Your task to perform on an android device: read, delete, or share a saved page in the chrome app Image 0: 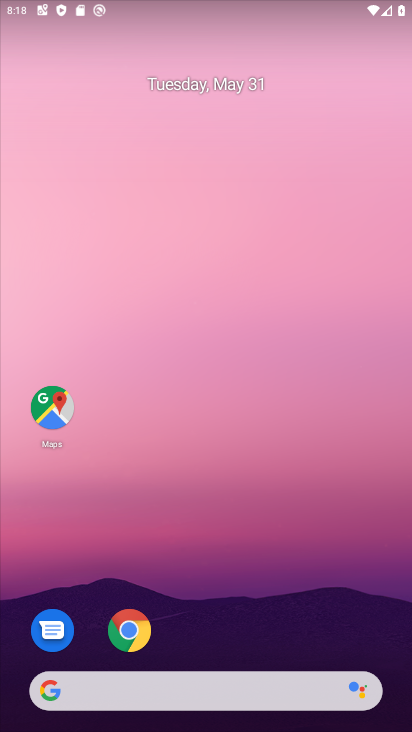
Step 0: drag from (235, 581) to (245, 234)
Your task to perform on an android device: read, delete, or share a saved page in the chrome app Image 1: 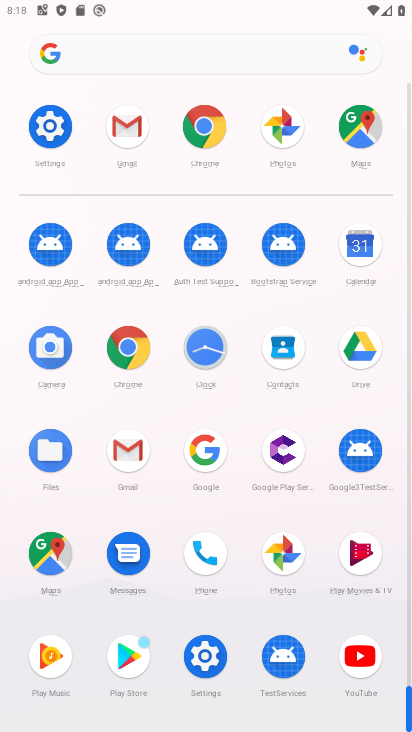
Step 1: click (119, 342)
Your task to perform on an android device: read, delete, or share a saved page in the chrome app Image 2: 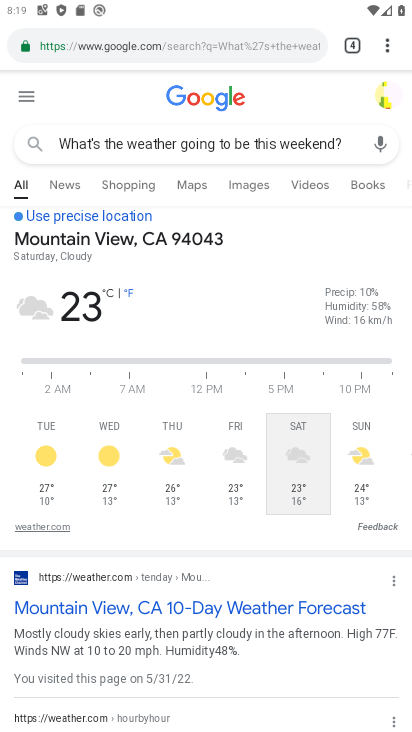
Step 2: click (388, 41)
Your task to perform on an android device: read, delete, or share a saved page in the chrome app Image 3: 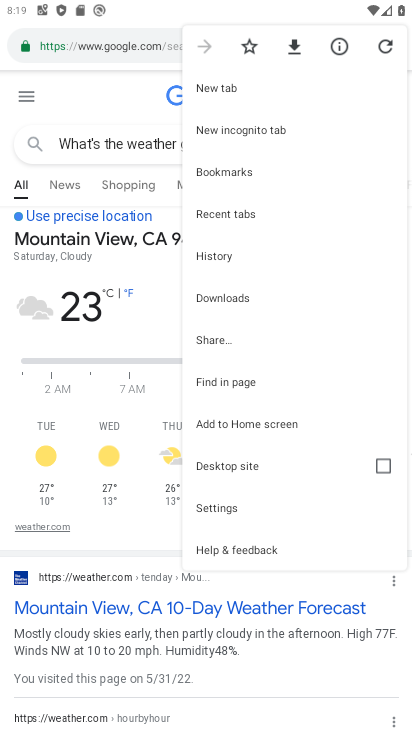
Step 3: click (222, 304)
Your task to perform on an android device: read, delete, or share a saved page in the chrome app Image 4: 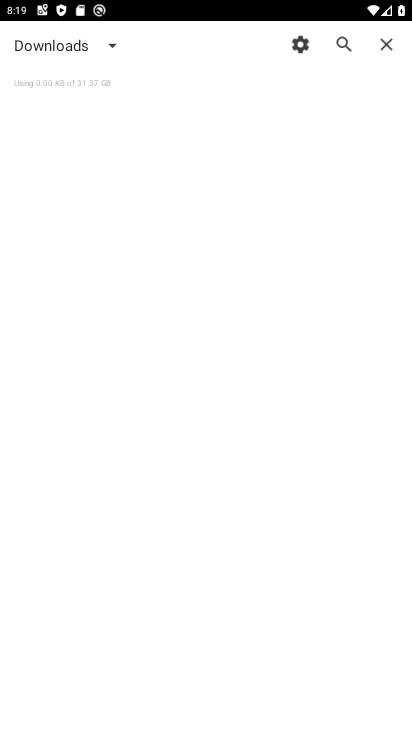
Step 4: click (94, 37)
Your task to perform on an android device: read, delete, or share a saved page in the chrome app Image 5: 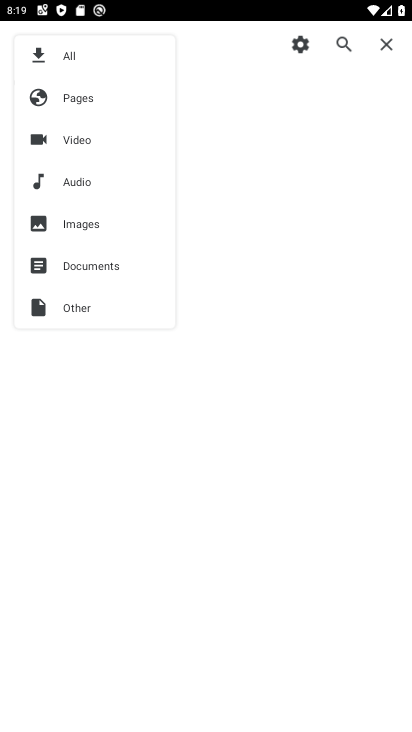
Step 5: click (72, 106)
Your task to perform on an android device: read, delete, or share a saved page in the chrome app Image 6: 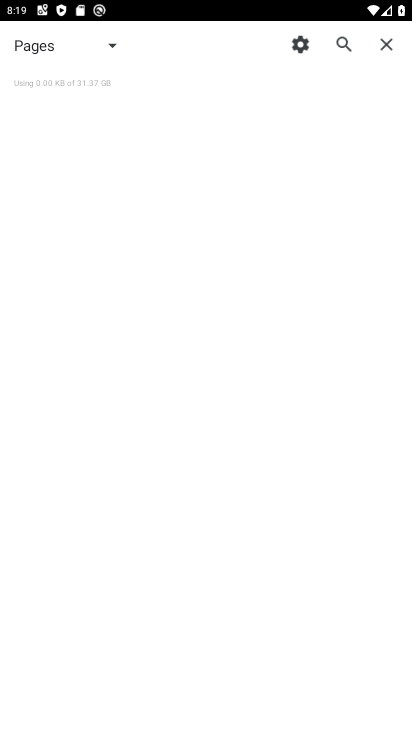
Step 6: task complete